Your task to perform on an android device: Open Yahoo.com Image 0: 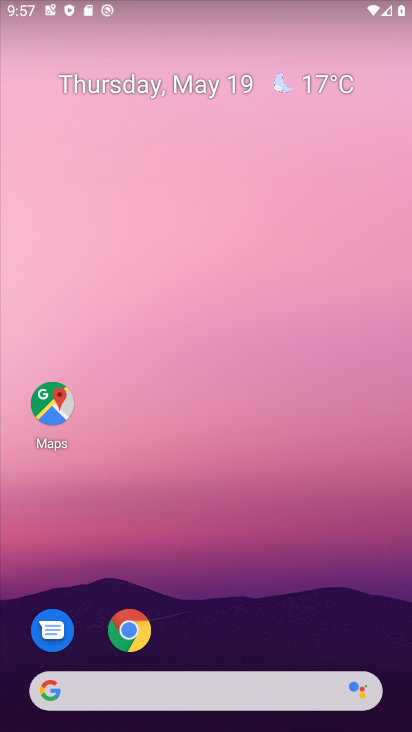
Step 0: click (129, 631)
Your task to perform on an android device: Open Yahoo.com Image 1: 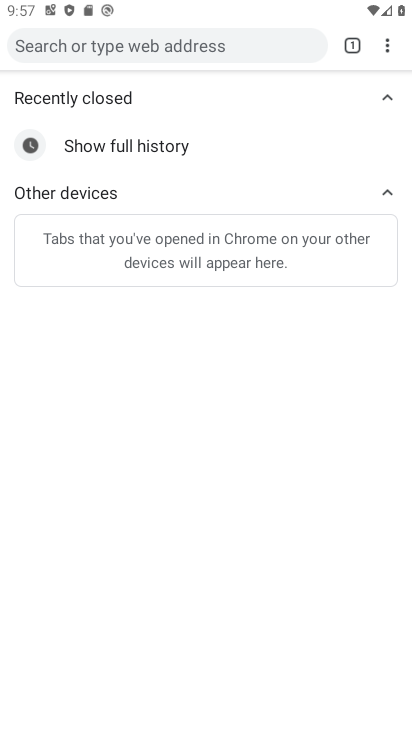
Step 1: press home button
Your task to perform on an android device: Open Yahoo.com Image 2: 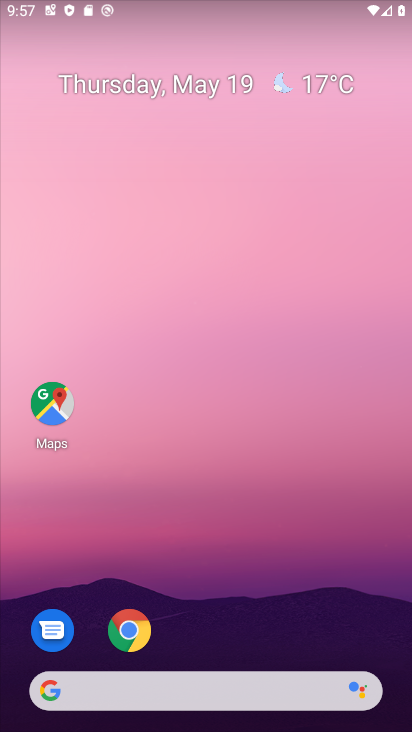
Step 2: click (130, 633)
Your task to perform on an android device: Open Yahoo.com Image 3: 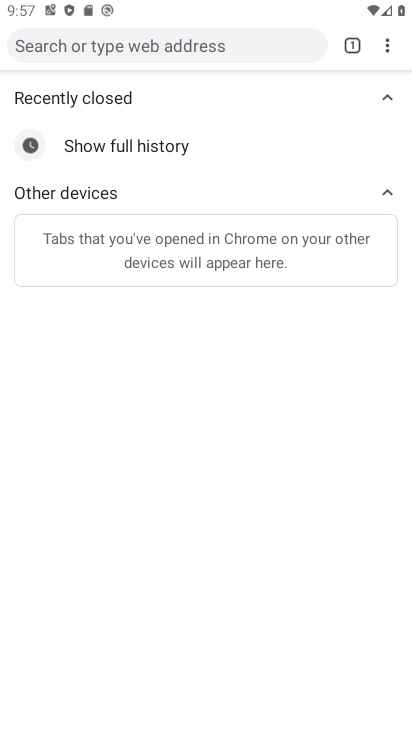
Step 3: click (384, 49)
Your task to perform on an android device: Open Yahoo.com Image 4: 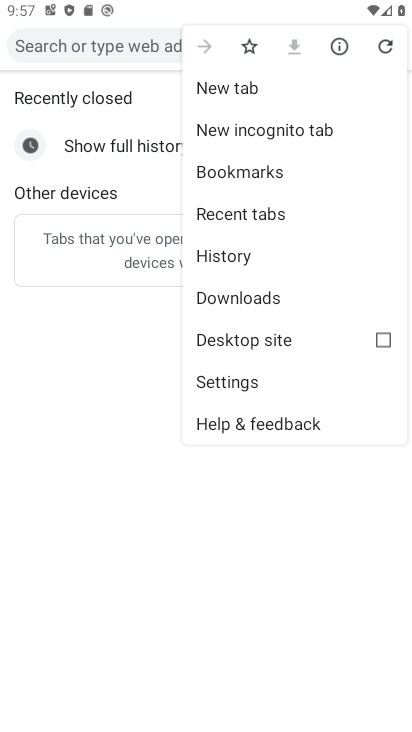
Step 4: click (238, 82)
Your task to perform on an android device: Open Yahoo.com Image 5: 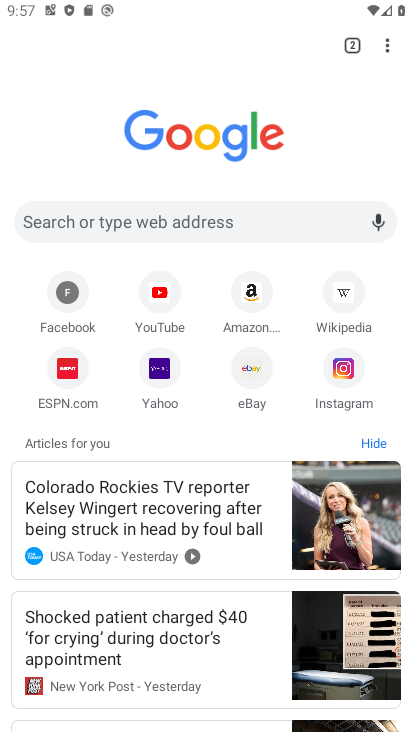
Step 5: click (153, 373)
Your task to perform on an android device: Open Yahoo.com Image 6: 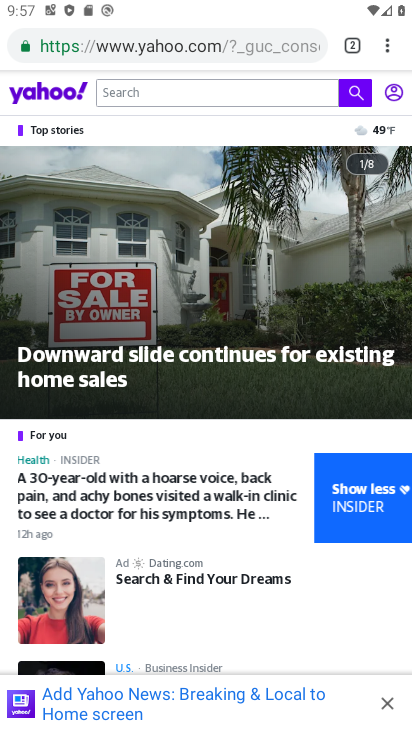
Step 6: task complete